Your task to perform on an android device: Open display settings Image 0: 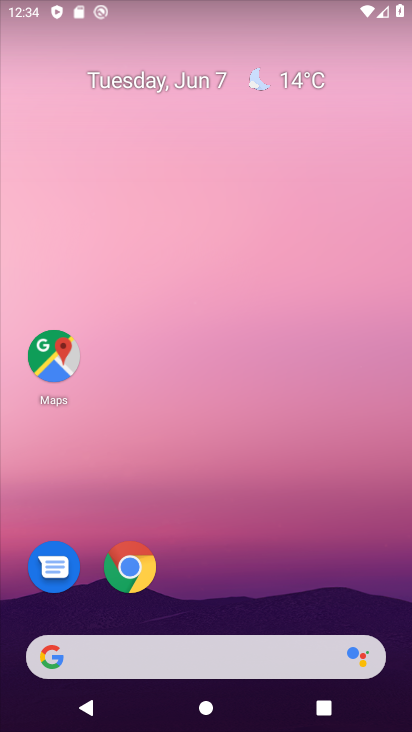
Step 0: drag from (242, 528) to (224, 11)
Your task to perform on an android device: Open display settings Image 1: 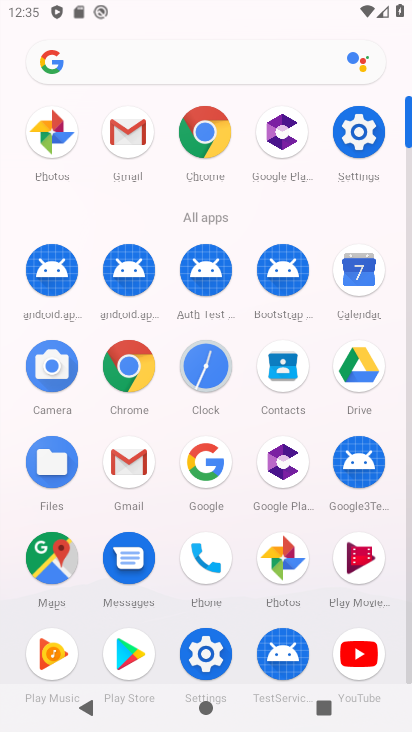
Step 1: click (362, 121)
Your task to perform on an android device: Open display settings Image 2: 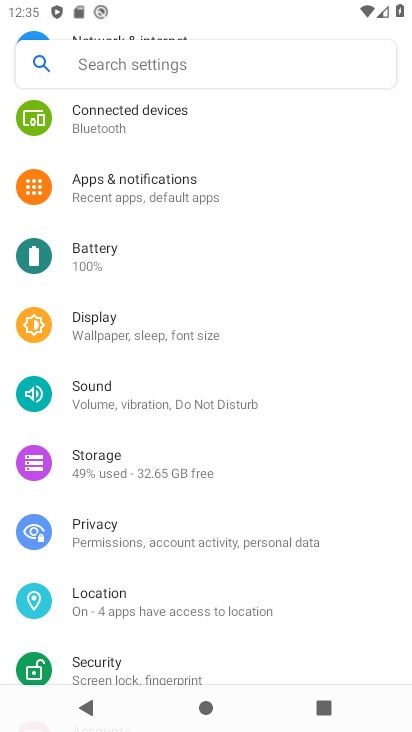
Step 2: click (179, 330)
Your task to perform on an android device: Open display settings Image 3: 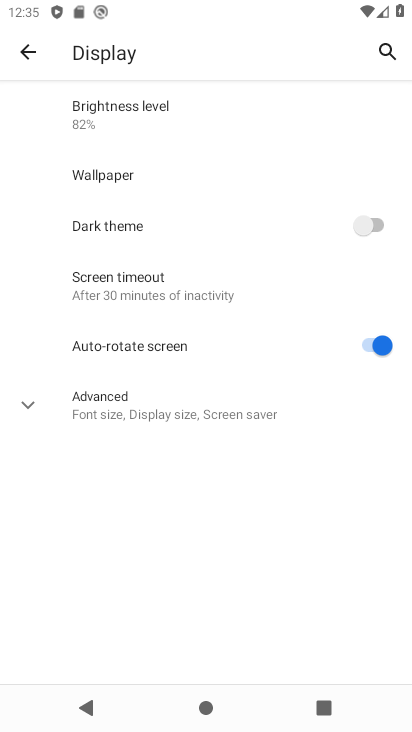
Step 3: task complete